Your task to perform on an android device: Open accessibility settings Image 0: 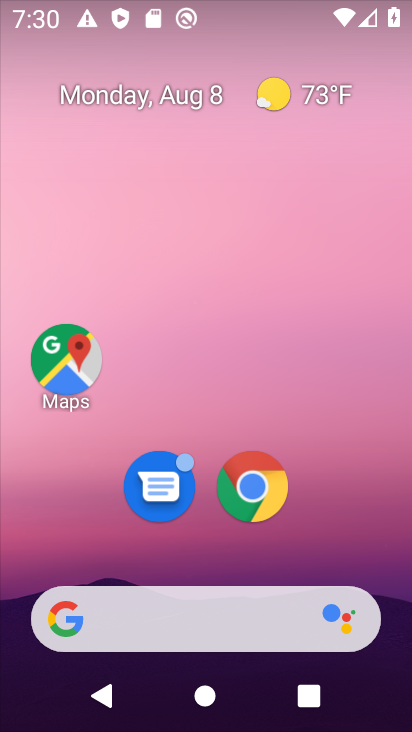
Step 0: drag from (325, 598) to (365, 42)
Your task to perform on an android device: Open accessibility settings Image 1: 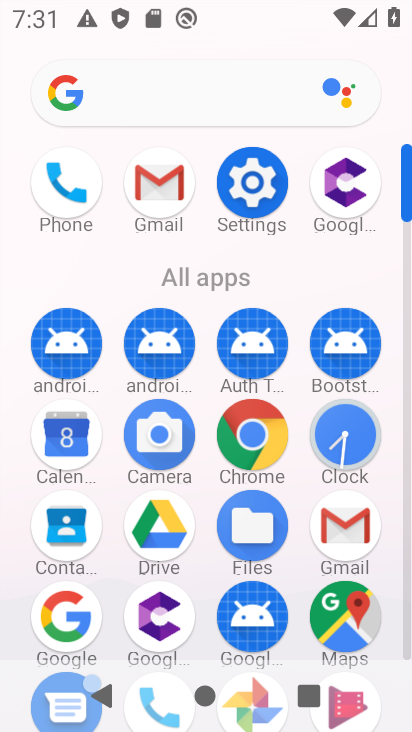
Step 1: click (241, 179)
Your task to perform on an android device: Open accessibility settings Image 2: 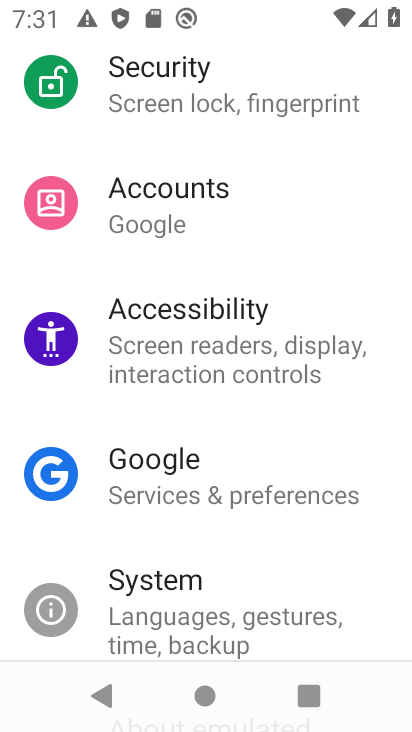
Step 2: click (204, 323)
Your task to perform on an android device: Open accessibility settings Image 3: 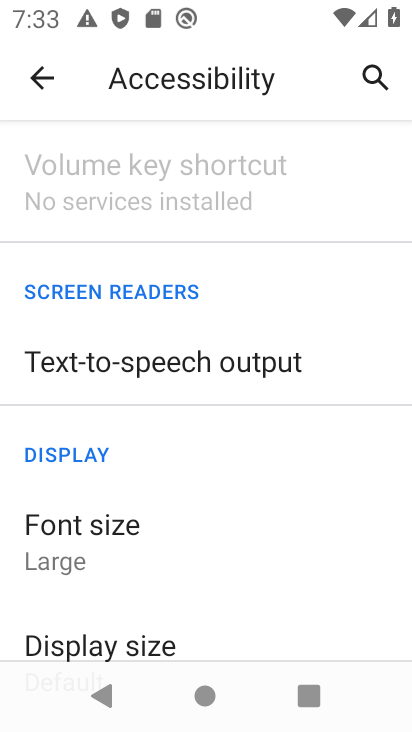
Step 3: task complete